Your task to perform on an android device: turn on the 24-hour format for clock Image 0: 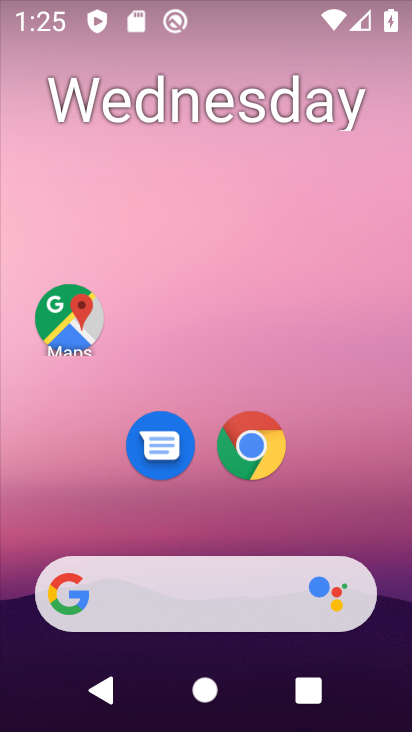
Step 0: drag from (100, 447) to (169, 42)
Your task to perform on an android device: turn on the 24-hour format for clock Image 1: 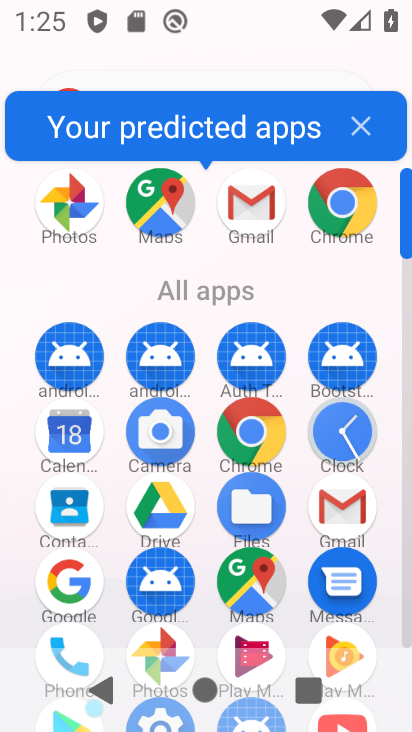
Step 1: click (358, 445)
Your task to perform on an android device: turn on the 24-hour format for clock Image 2: 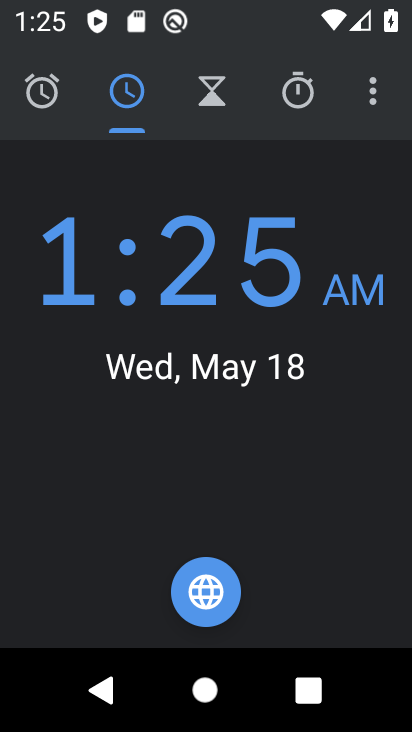
Step 2: click (383, 99)
Your task to perform on an android device: turn on the 24-hour format for clock Image 3: 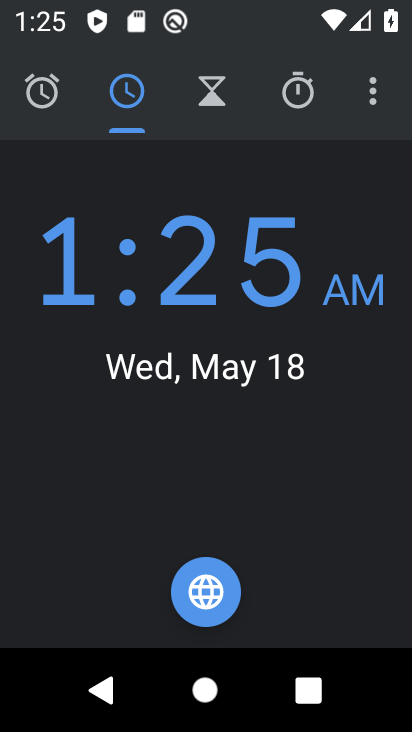
Step 3: click (384, 99)
Your task to perform on an android device: turn on the 24-hour format for clock Image 4: 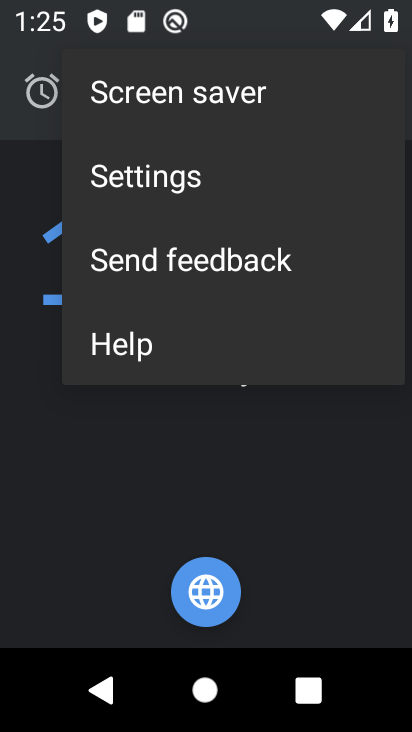
Step 4: click (332, 169)
Your task to perform on an android device: turn on the 24-hour format for clock Image 5: 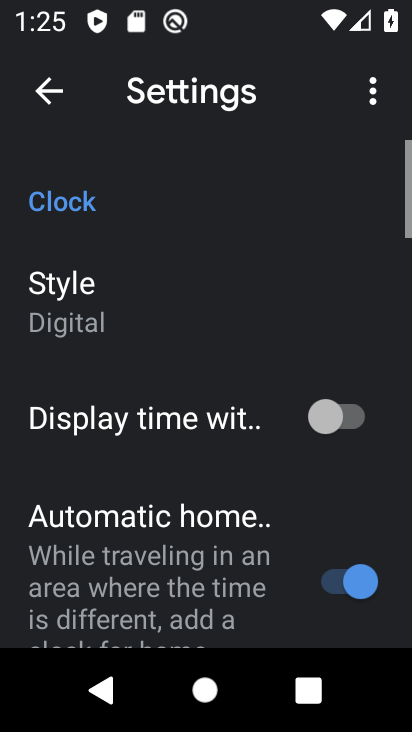
Step 5: drag from (134, 538) to (252, 144)
Your task to perform on an android device: turn on the 24-hour format for clock Image 6: 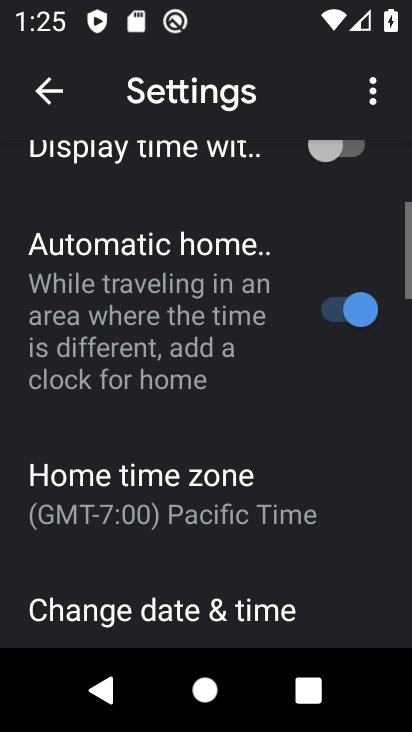
Step 6: drag from (151, 554) to (250, 290)
Your task to perform on an android device: turn on the 24-hour format for clock Image 7: 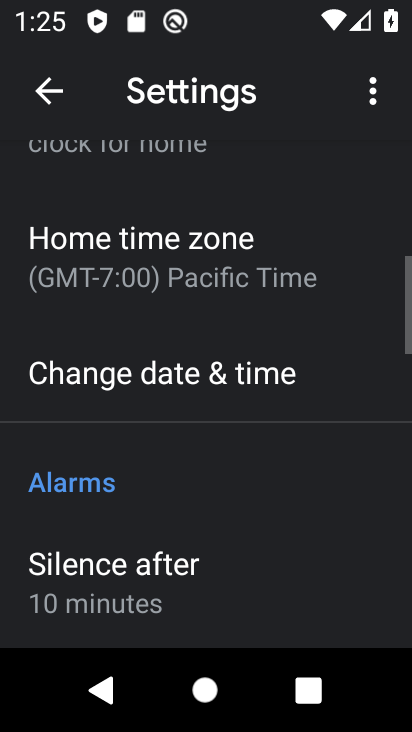
Step 7: click (247, 382)
Your task to perform on an android device: turn on the 24-hour format for clock Image 8: 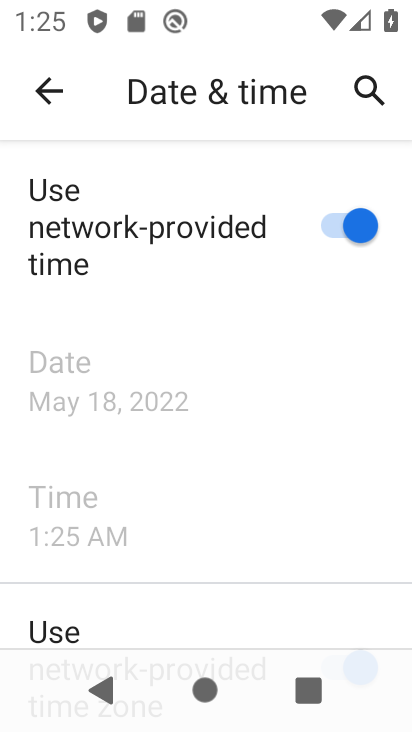
Step 8: drag from (196, 563) to (338, 149)
Your task to perform on an android device: turn on the 24-hour format for clock Image 9: 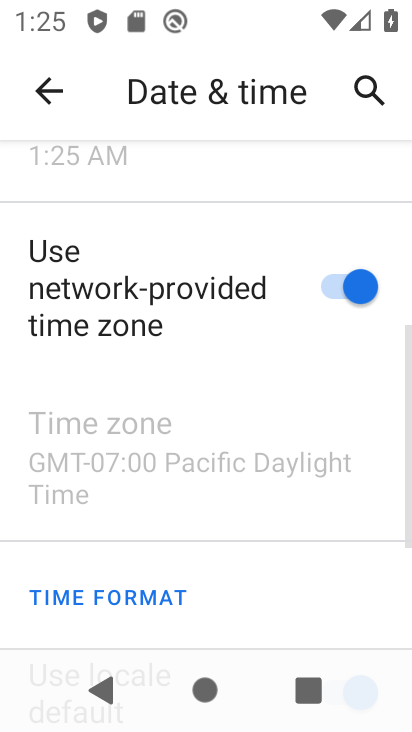
Step 9: drag from (124, 551) to (271, 122)
Your task to perform on an android device: turn on the 24-hour format for clock Image 10: 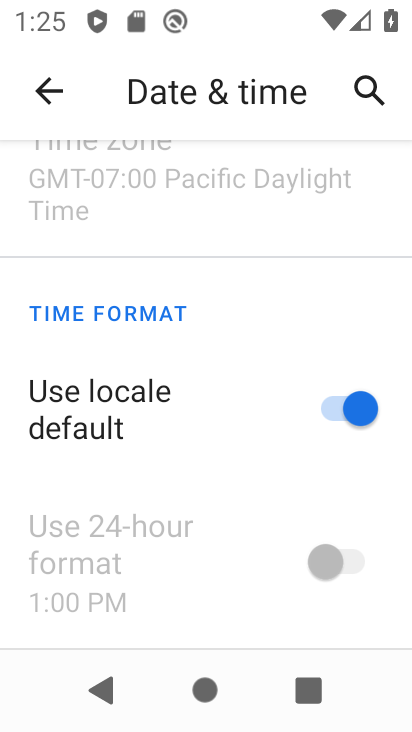
Step 10: click (333, 413)
Your task to perform on an android device: turn on the 24-hour format for clock Image 11: 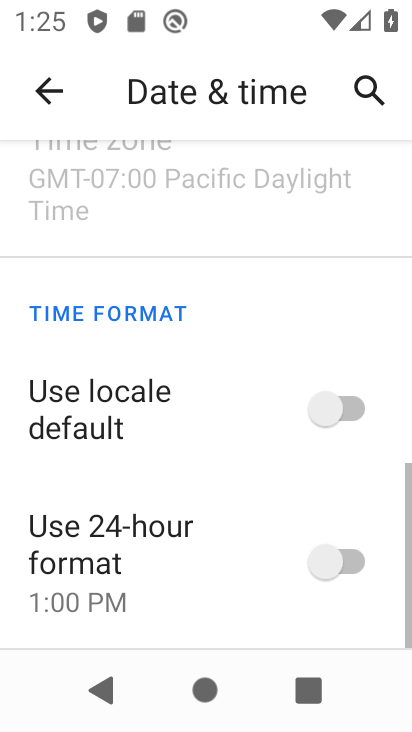
Step 11: click (371, 555)
Your task to perform on an android device: turn on the 24-hour format for clock Image 12: 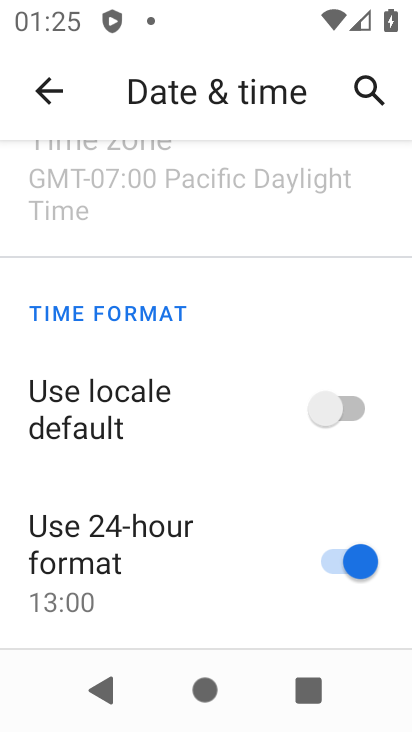
Step 12: task complete